Your task to perform on an android device: Open the web browser Image 0: 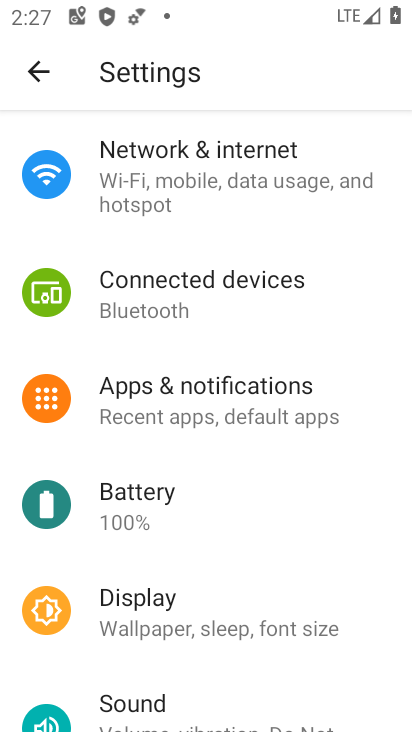
Step 0: press home button
Your task to perform on an android device: Open the web browser Image 1: 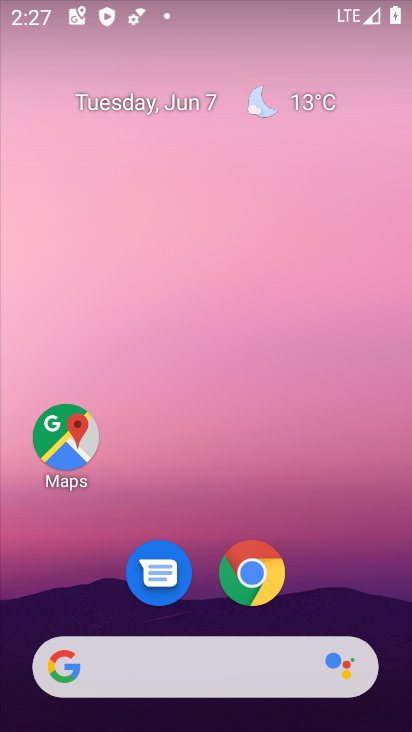
Step 1: click (251, 568)
Your task to perform on an android device: Open the web browser Image 2: 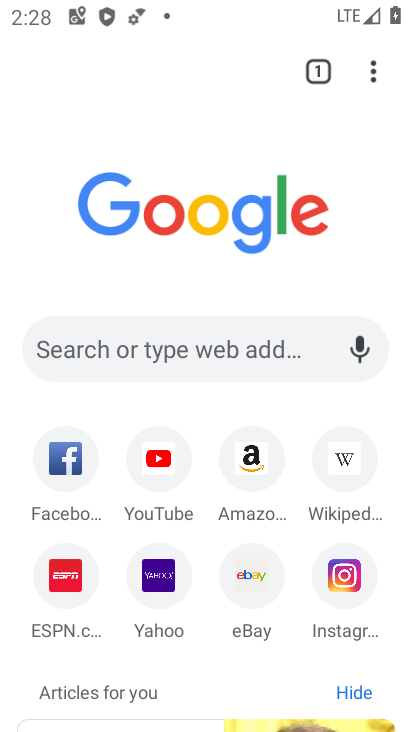
Step 2: task complete